Your task to perform on an android device: set the timer Image 0: 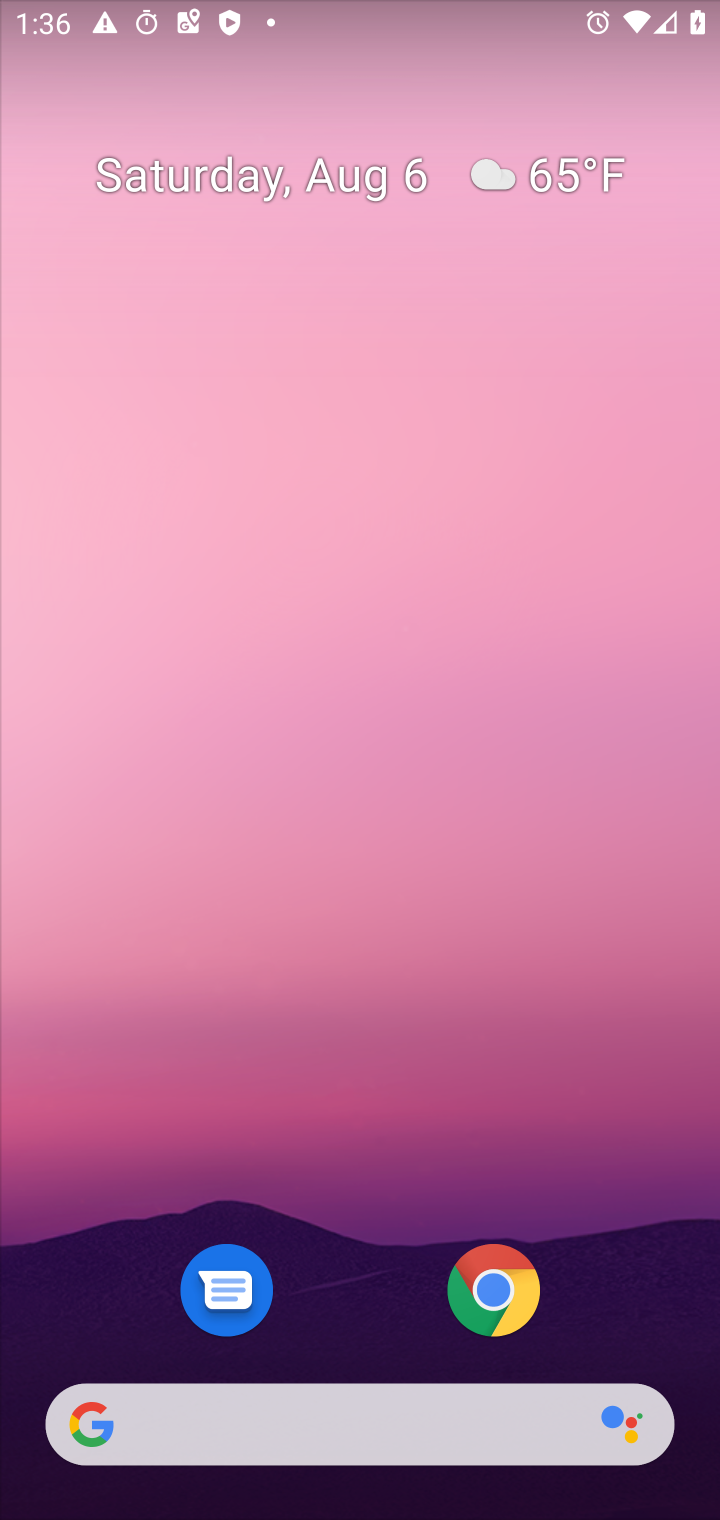
Step 0: drag from (373, 1159) to (419, 296)
Your task to perform on an android device: set the timer Image 1: 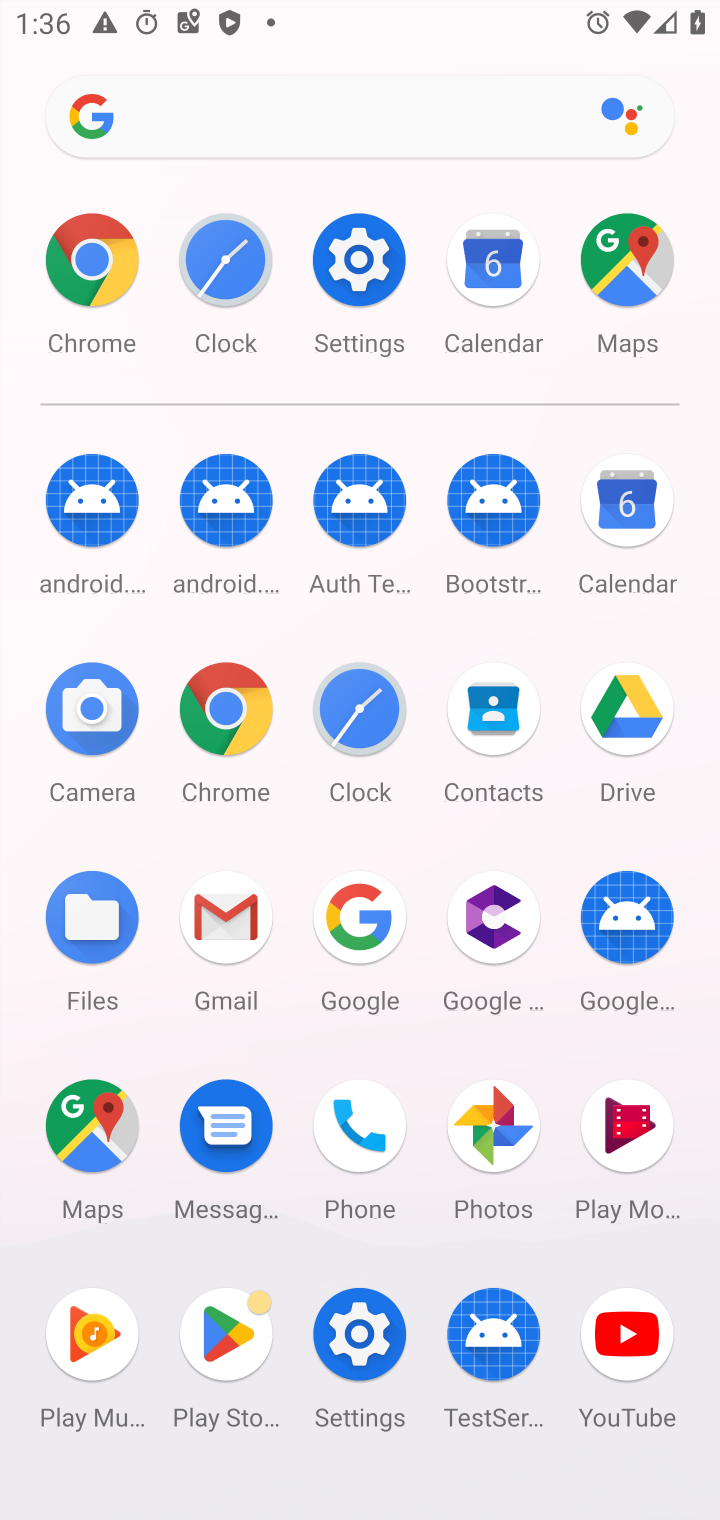
Step 1: click (353, 703)
Your task to perform on an android device: set the timer Image 2: 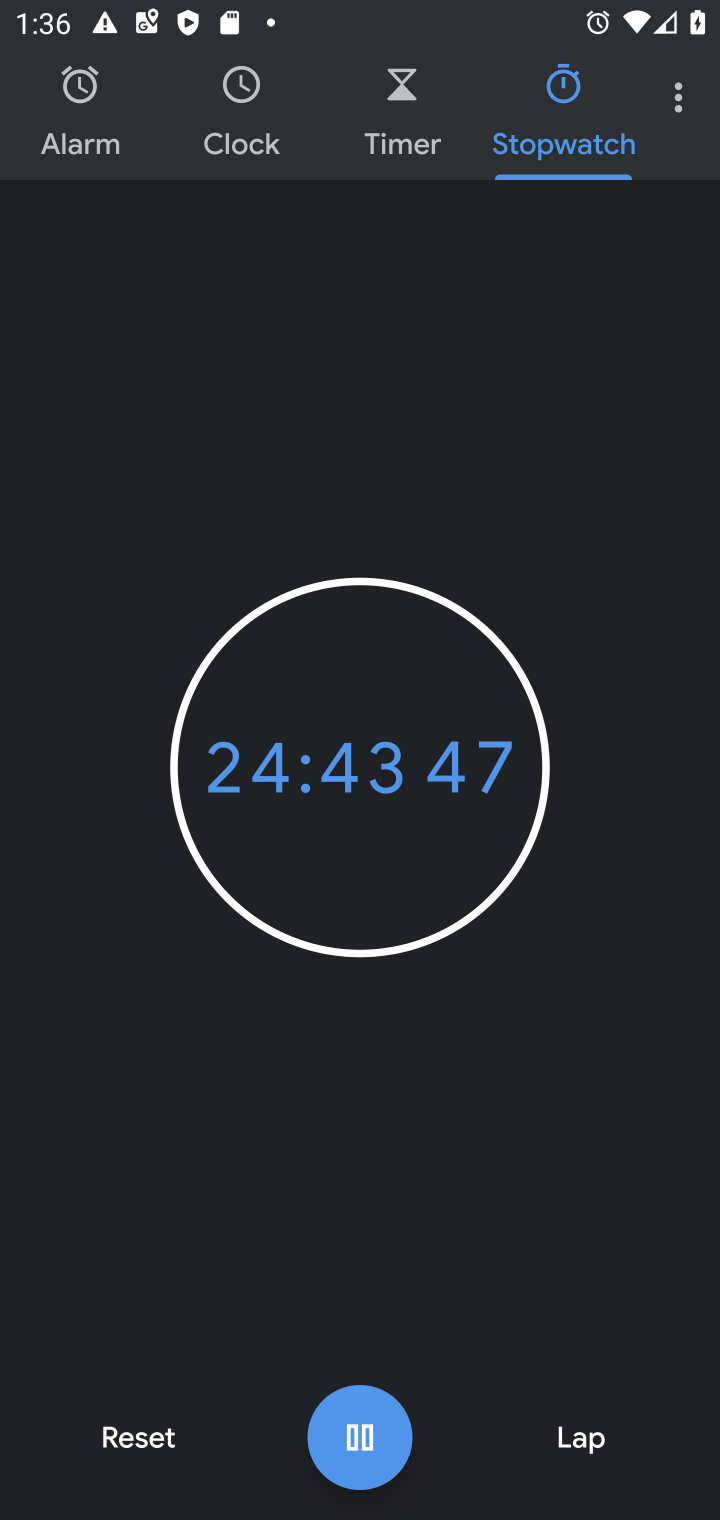
Step 2: click (150, 1439)
Your task to perform on an android device: set the timer Image 3: 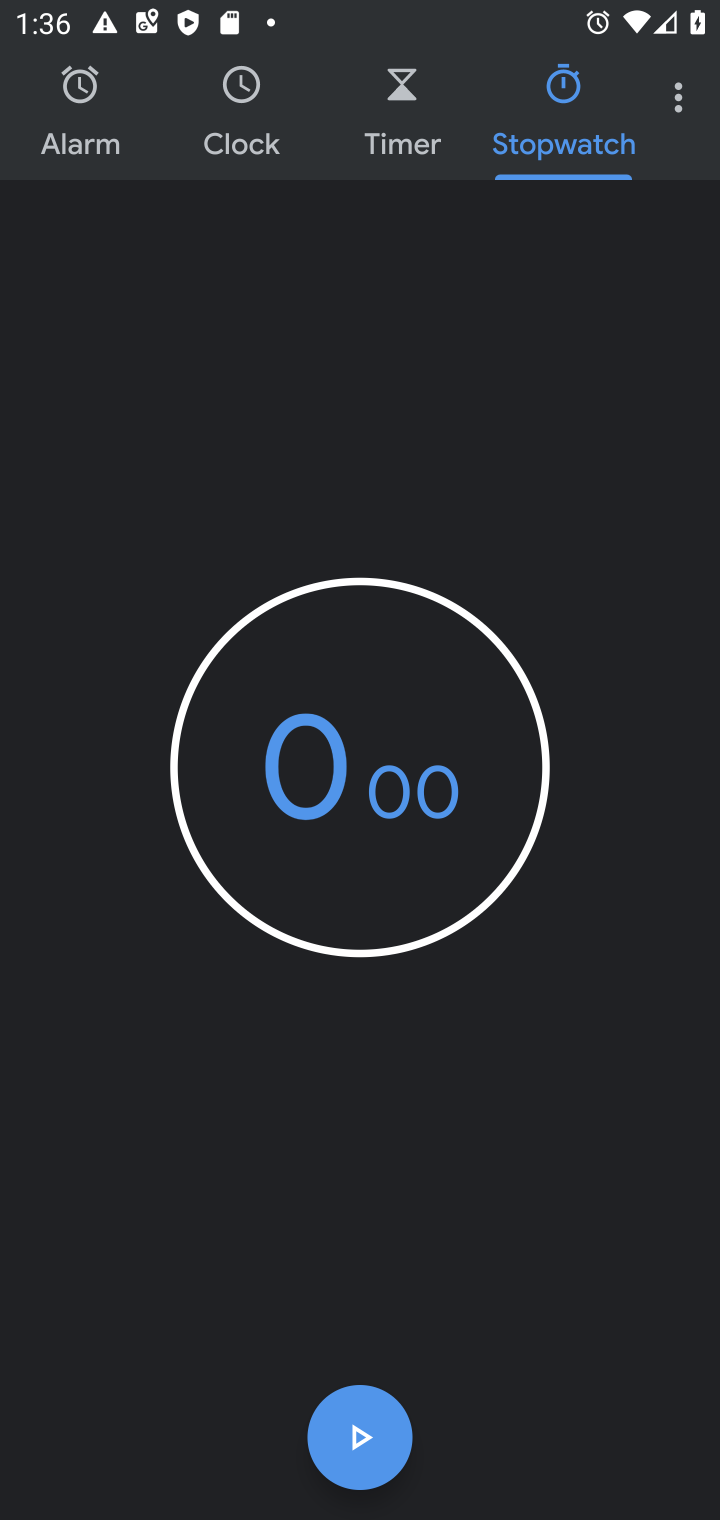
Step 3: click (391, 118)
Your task to perform on an android device: set the timer Image 4: 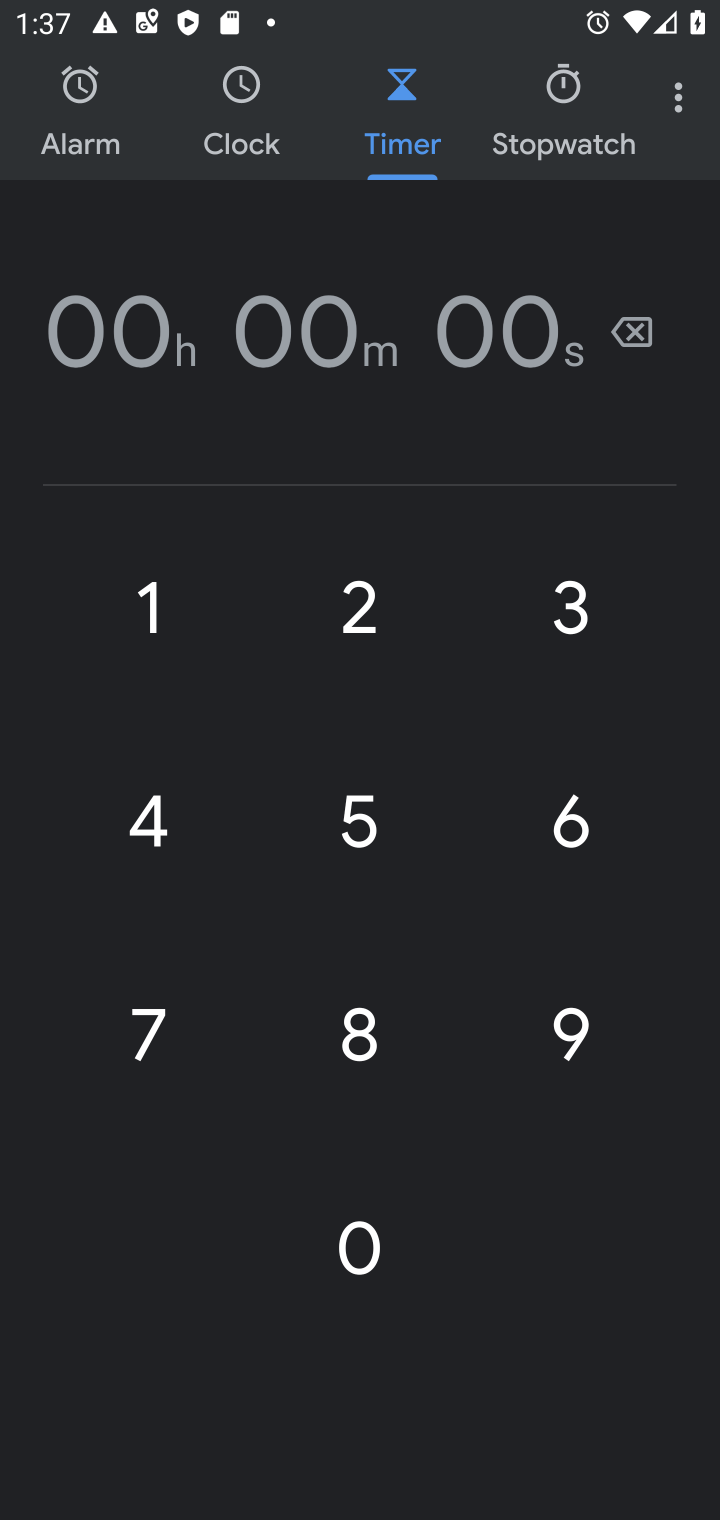
Step 4: click (555, 617)
Your task to perform on an android device: set the timer Image 5: 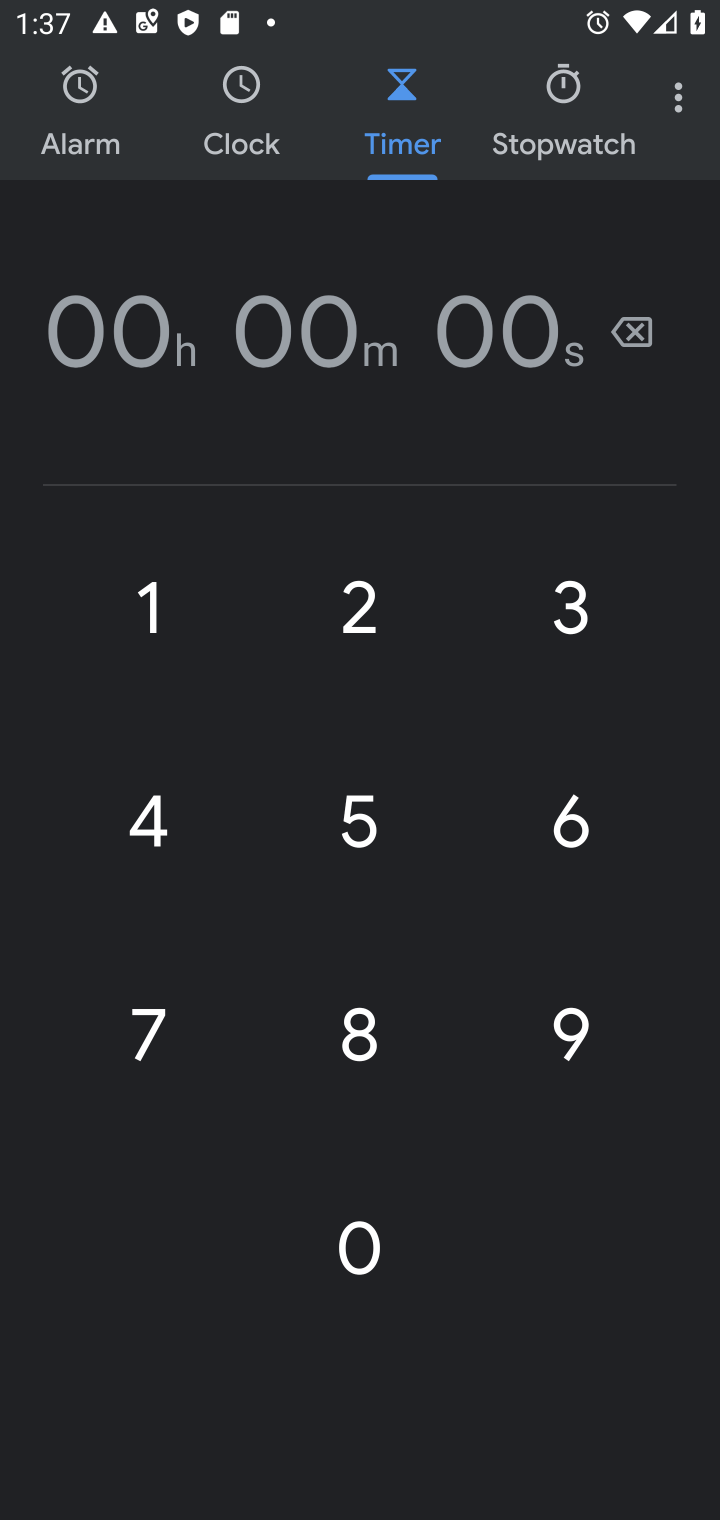
Step 5: click (364, 1207)
Your task to perform on an android device: set the timer Image 6: 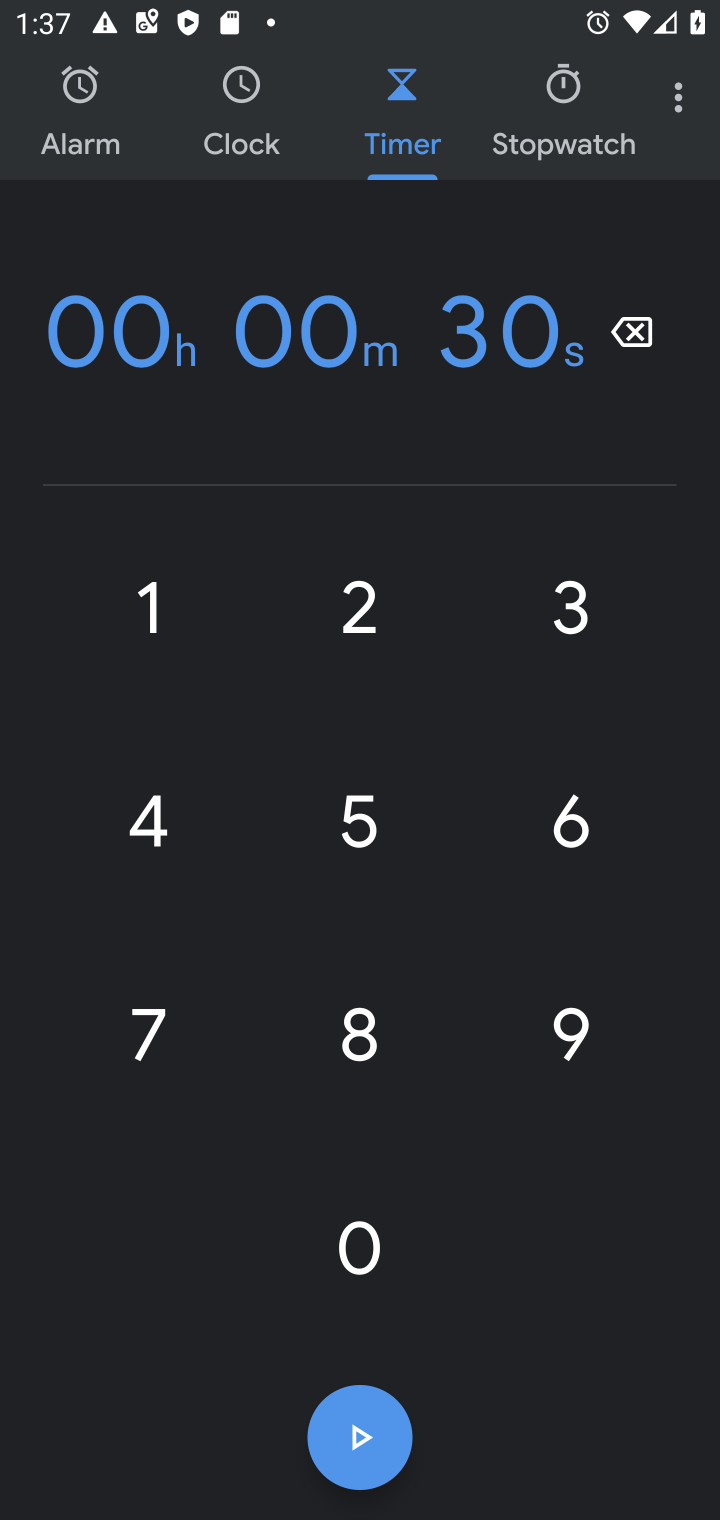
Step 6: click (364, 1209)
Your task to perform on an android device: set the timer Image 7: 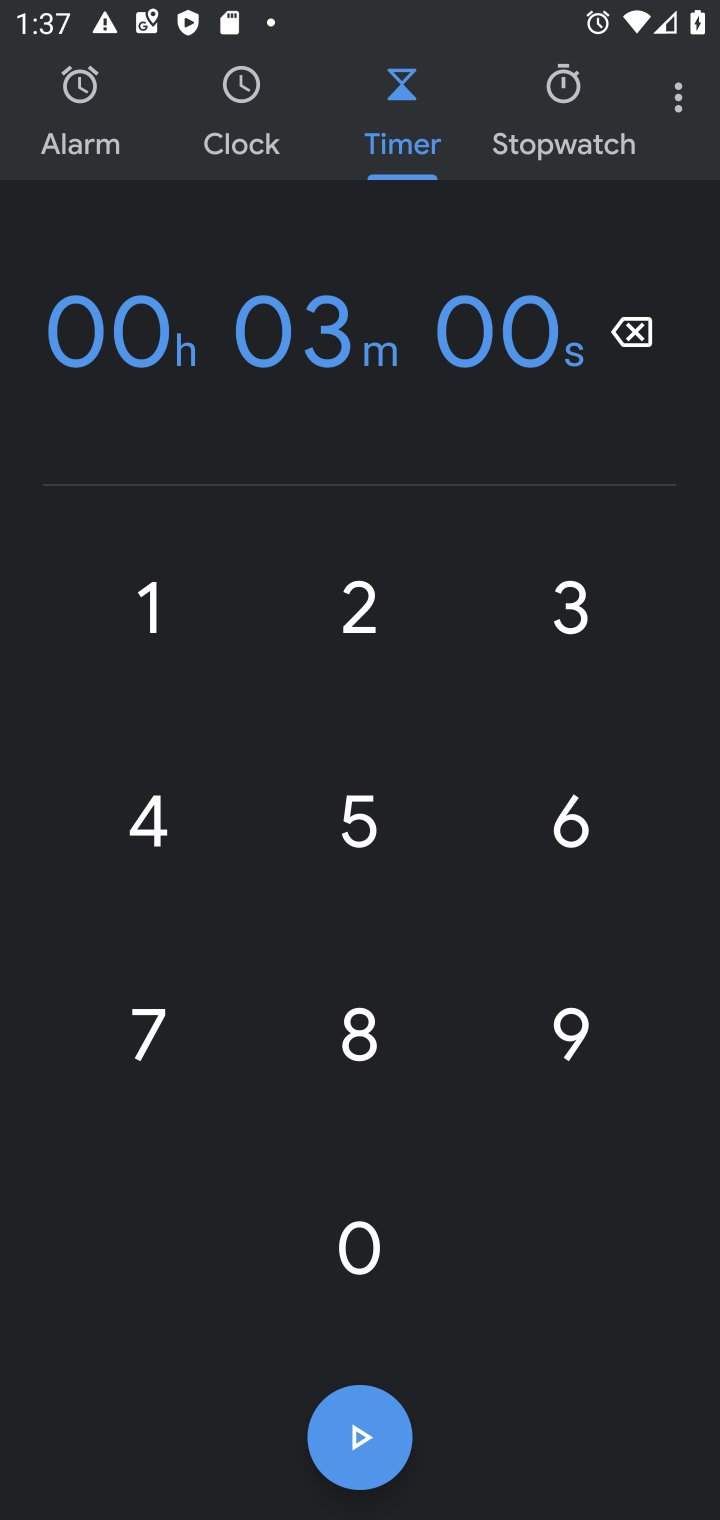
Step 7: click (361, 1215)
Your task to perform on an android device: set the timer Image 8: 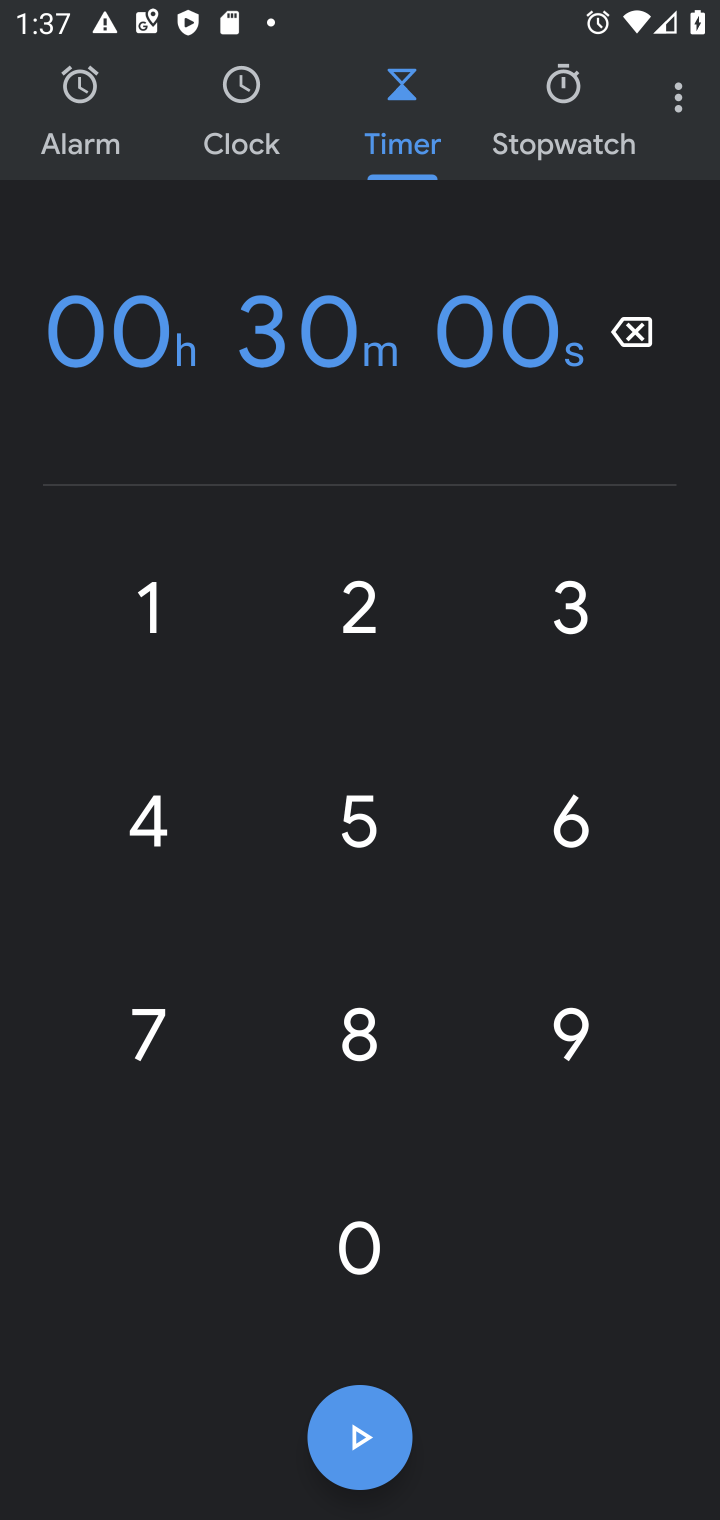
Step 8: click (376, 1443)
Your task to perform on an android device: set the timer Image 9: 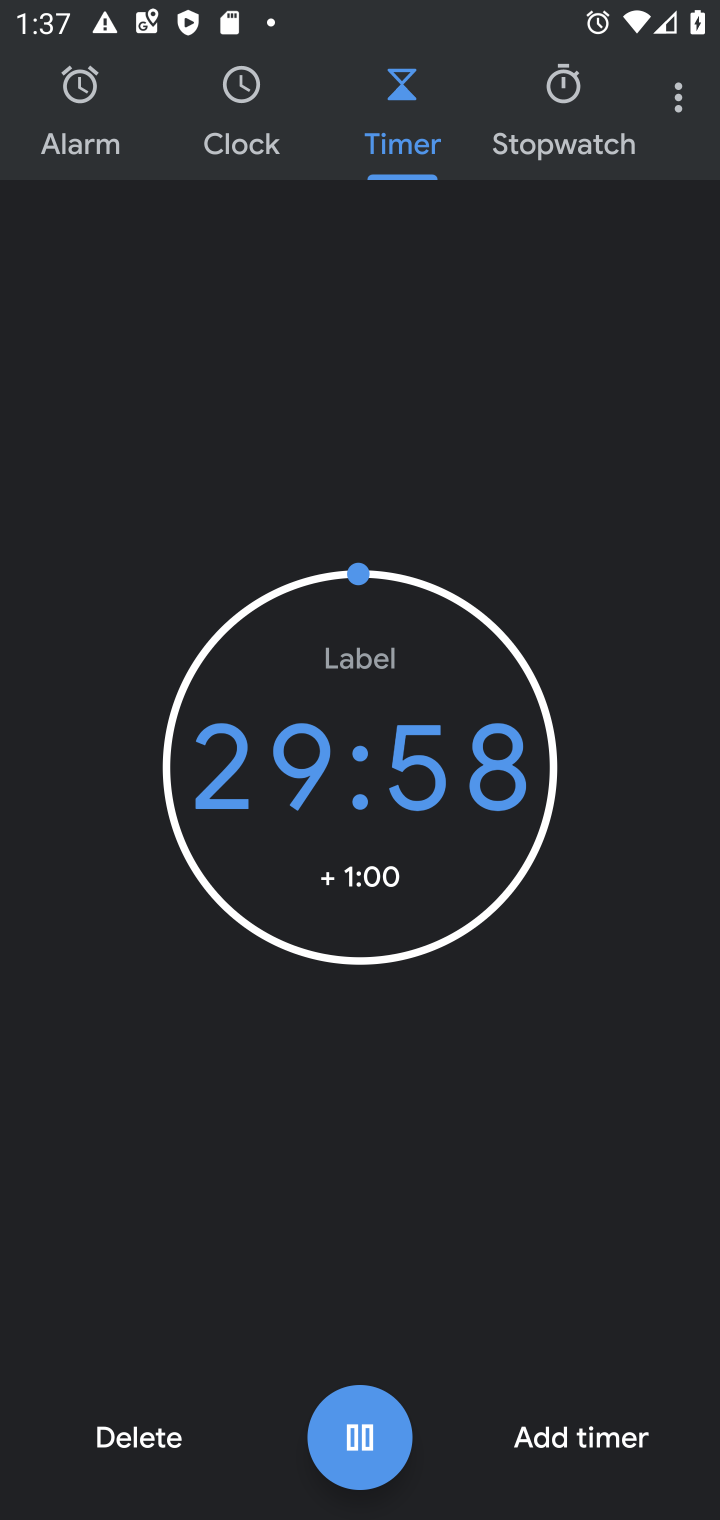
Step 9: task complete